Your task to perform on an android device: Go to network settings Image 0: 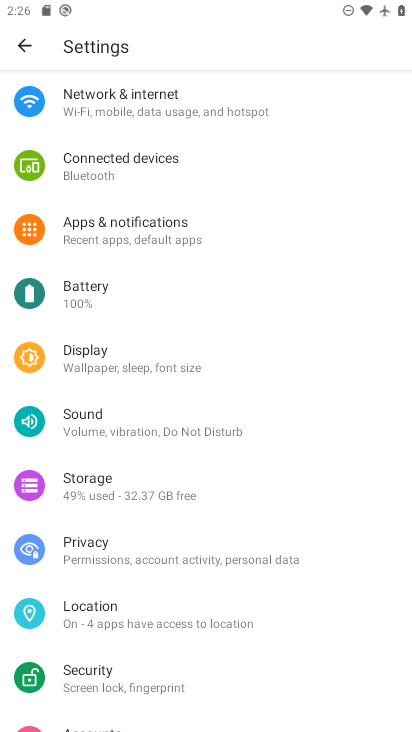
Step 0: click (123, 98)
Your task to perform on an android device: Go to network settings Image 1: 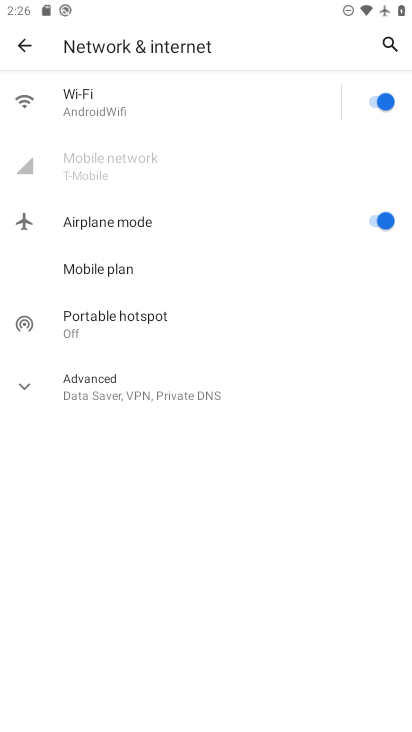
Step 1: task complete